Your task to perform on an android device: Open wifi settings Image 0: 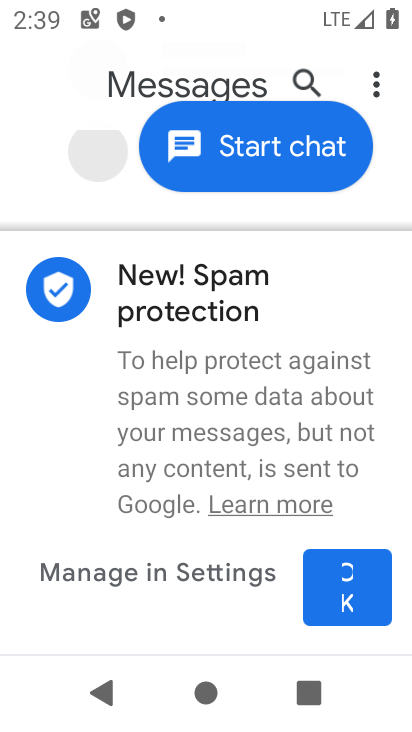
Step 0: press home button
Your task to perform on an android device: Open wifi settings Image 1: 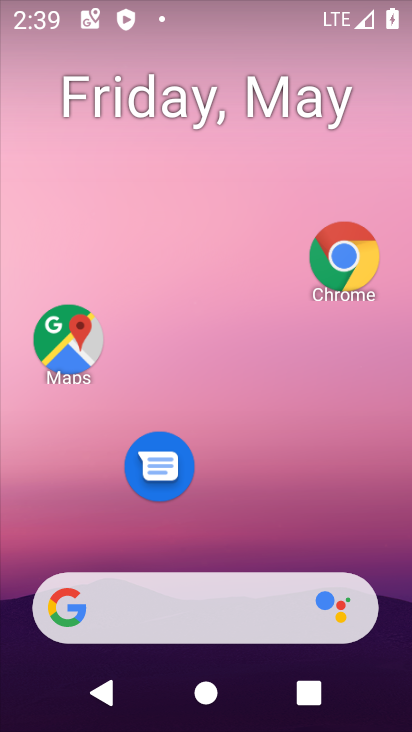
Step 1: task complete